Your task to perform on an android device: Open the calendar app, open the side menu, and click the "Day" option Image 0: 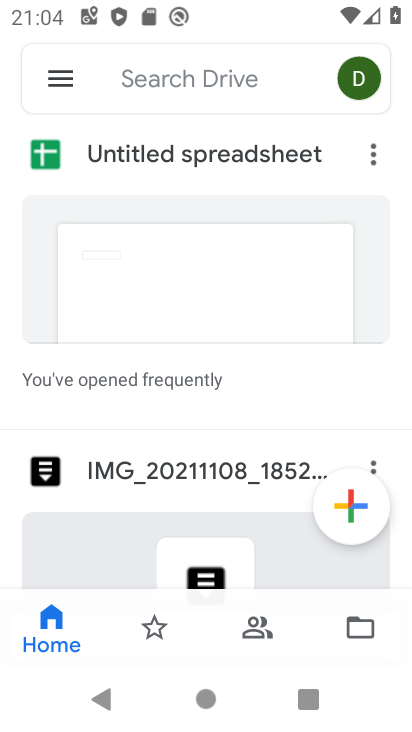
Step 0: press home button
Your task to perform on an android device: Open the calendar app, open the side menu, and click the "Day" option Image 1: 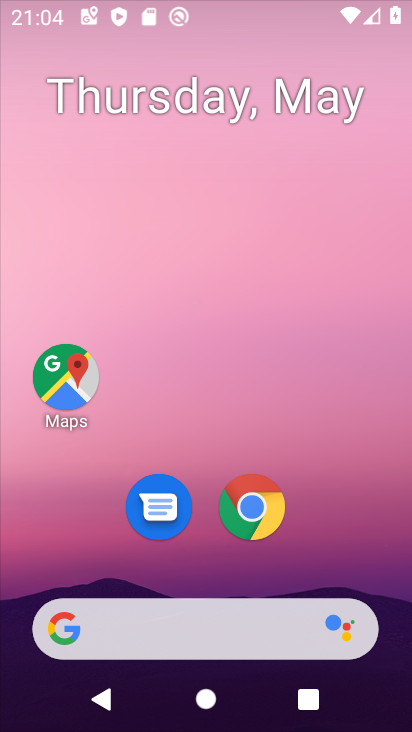
Step 1: drag from (262, 629) to (270, 230)
Your task to perform on an android device: Open the calendar app, open the side menu, and click the "Day" option Image 2: 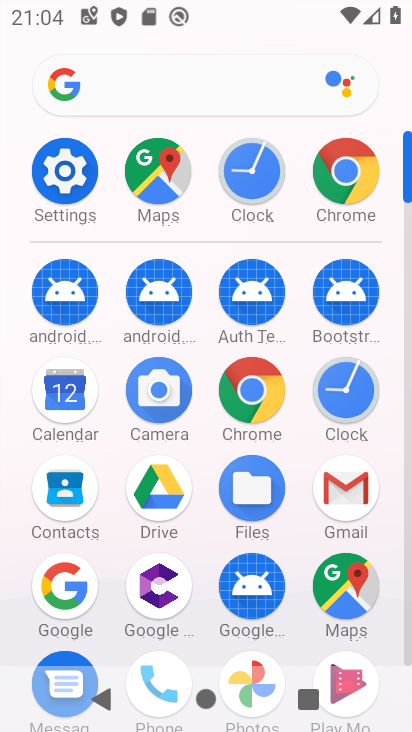
Step 2: click (80, 388)
Your task to perform on an android device: Open the calendar app, open the side menu, and click the "Day" option Image 3: 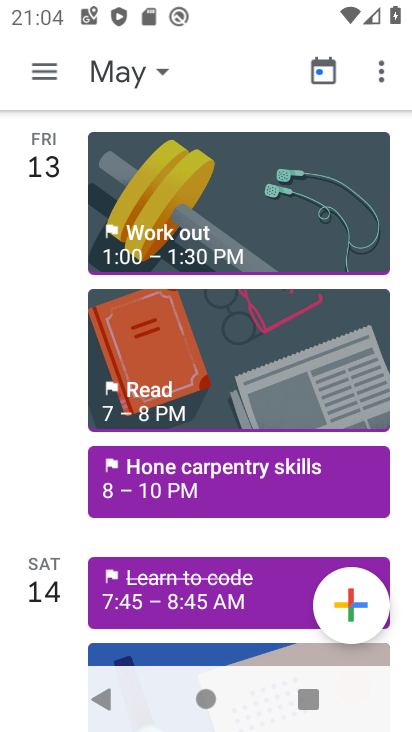
Step 3: click (33, 64)
Your task to perform on an android device: Open the calendar app, open the side menu, and click the "Day" option Image 4: 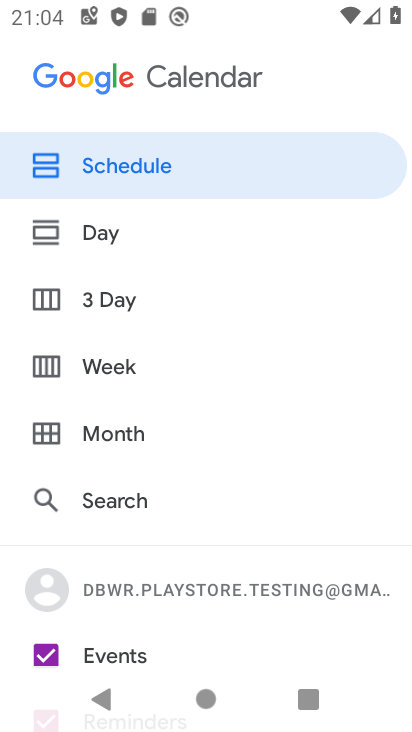
Step 4: click (120, 235)
Your task to perform on an android device: Open the calendar app, open the side menu, and click the "Day" option Image 5: 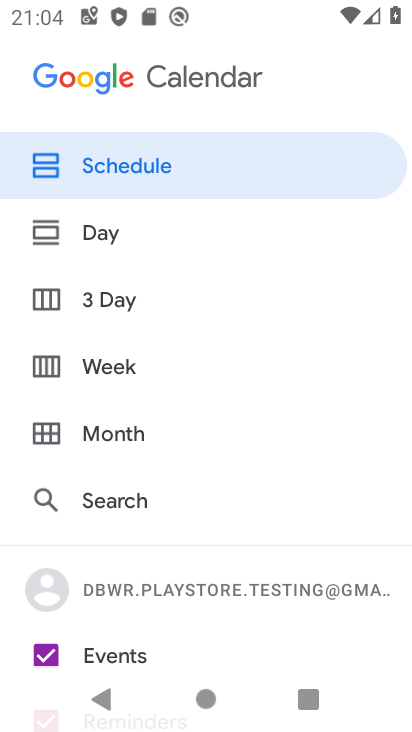
Step 5: click (138, 233)
Your task to perform on an android device: Open the calendar app, open the side menu, and click the "Day" option Image 6: 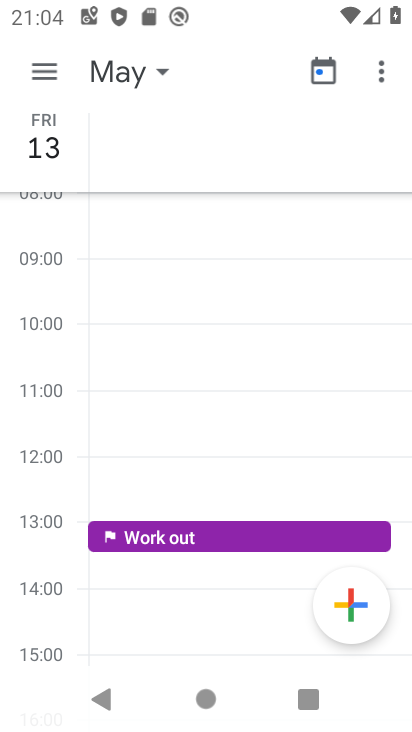
Step 6: task complete